Your task to perform on an android device: Open calendar and show me the second week of next month Image 0: 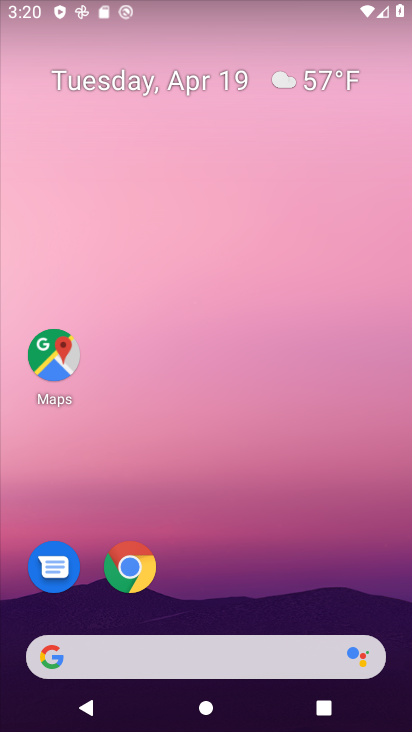
Step 0: drag from (267, 585) to (275, 127)
Your task to perform on an android device: Open calendar and show me the second week of next month Image 1: 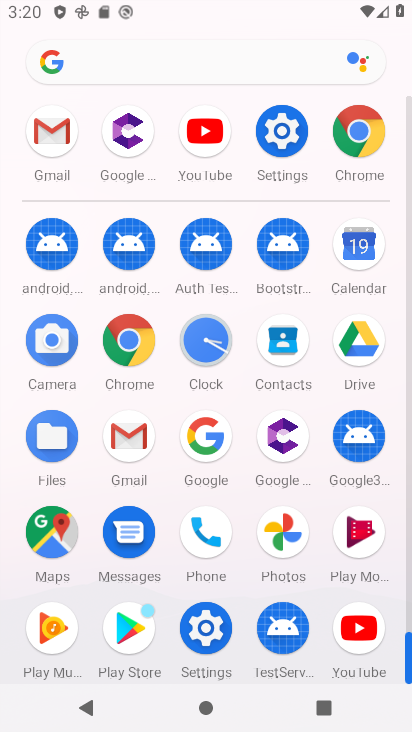
Step 1: click (360, 250)
Your task to perform on an android device: Open calendar and show me the second week of next month Image 2: 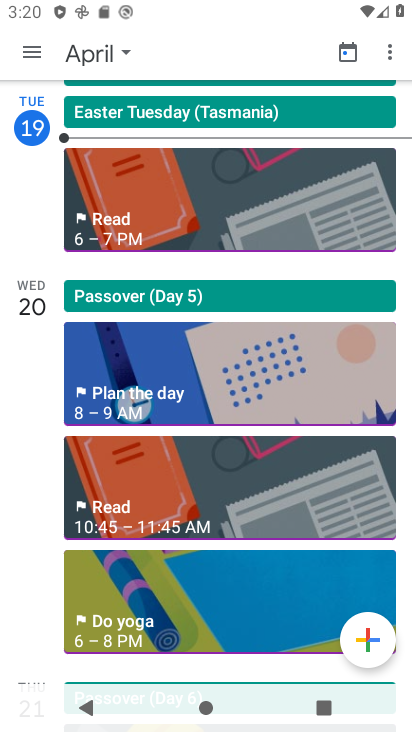
Step 2: click (123, 51)
Your task to perform on an android device: Open calendar and show me the second week of next month Image 3: 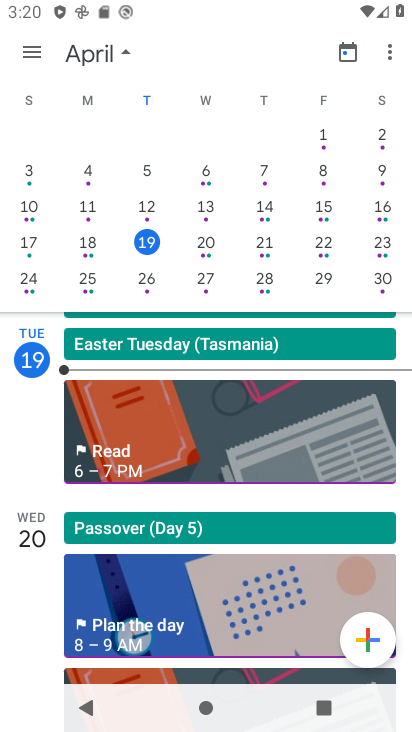
Step 3: drag from (379, 222) to (5, 213)
Your task to perform on an android device: Open calendar and show me the second week of next month Image 4: 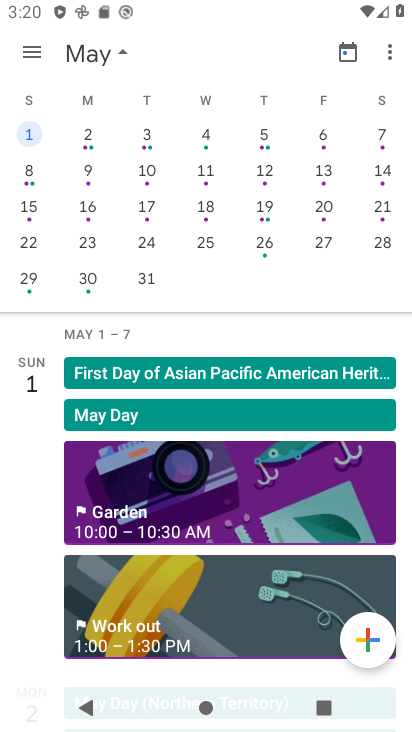
Step 4: click (86, 168)
Your task to perform on an android device: Open calendar and show me the second week of next month Image 5: 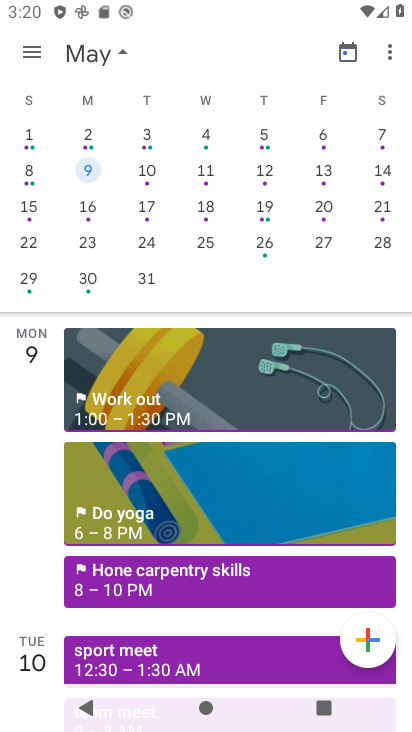
Step 5: task complete